Your task to perform on an android device: Open accessibility settings Image 0: 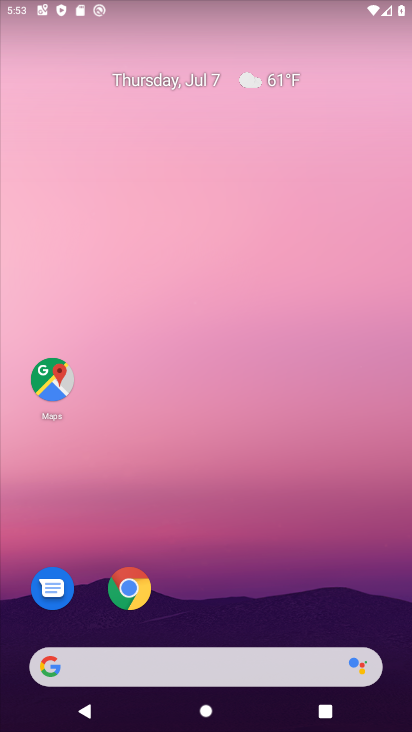
Step 0: drag from (223, 543) to (261, 61)
Your task to perform on an android device: Open accessibility settings Image 1: 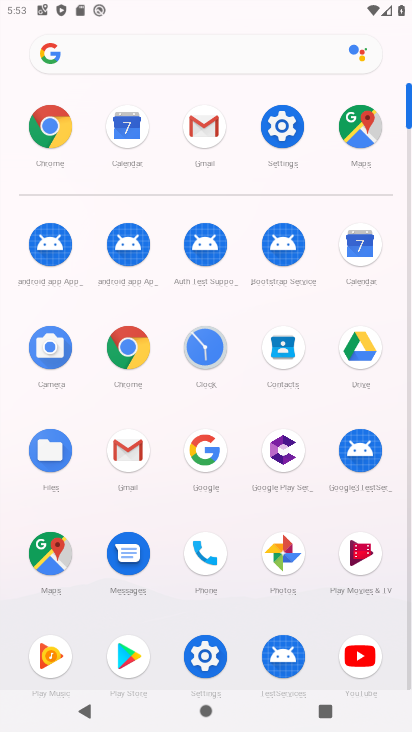
Step 1: click (280, 120)
Your task to perform on an android device: Open accessibility settings Image 2: 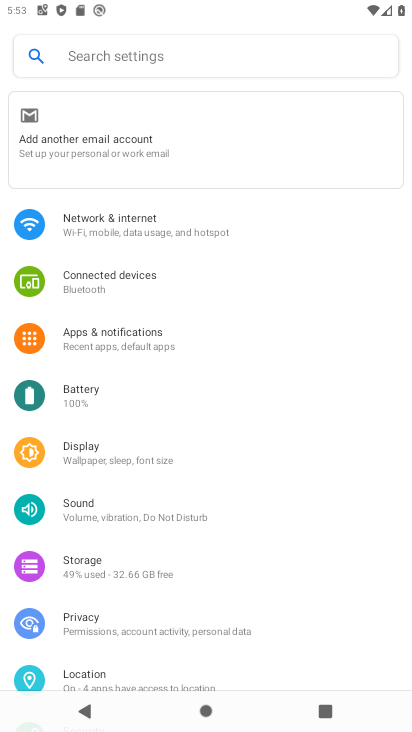
Step 2: drag from (160, 636) to (185, 21)
Your task to perform on an android device: Open accessibility settings Image 3: 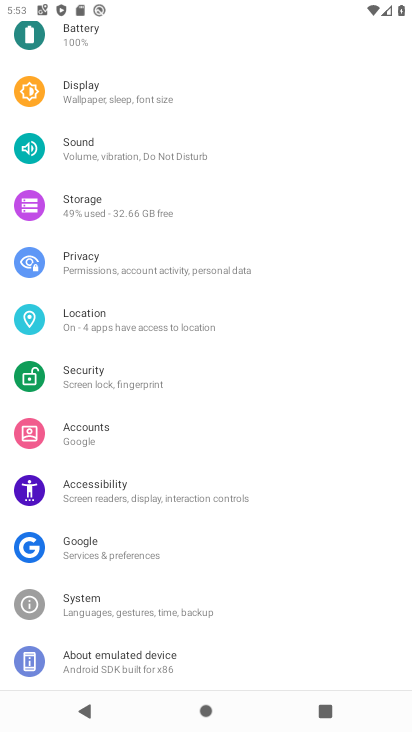
Step 3: click (91, 494)
Your task to perform on an android device: Open accessibility settings Image 4: 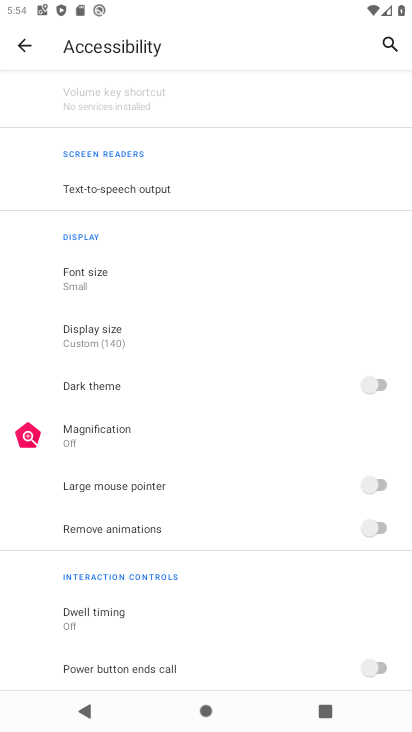
Step 4: task complete